Your task to perform on an android device: Turn on the flashlight Image 0: 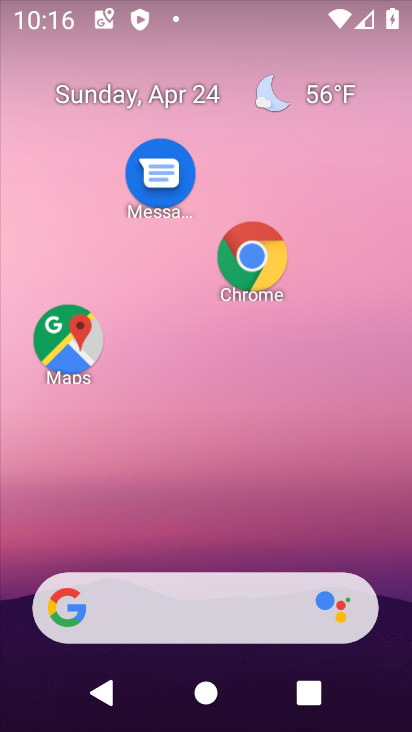
Step 0: drag from (211, 715) to (177, 75)
Your task to perform on an android device: Turn on the flashlight Image 1: 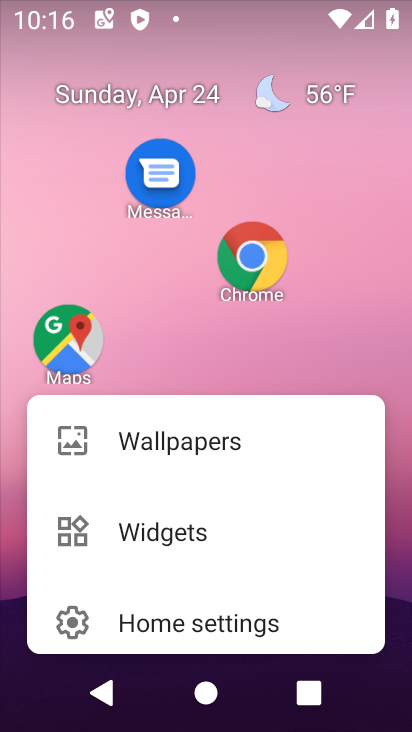
Step 1: click (181, 307)
Your task to perform on an android device: Turn on the flashlight Image 2: 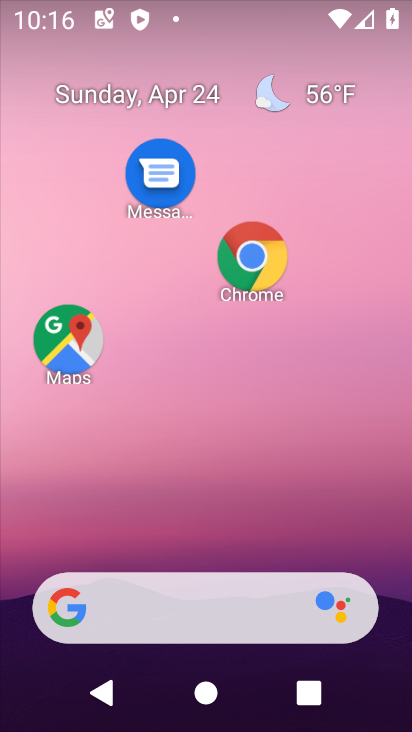
Step 2: drag from (228, 722) to (232, 166)
Your task to perform on an android device: Turn on the flashlight Image 3: 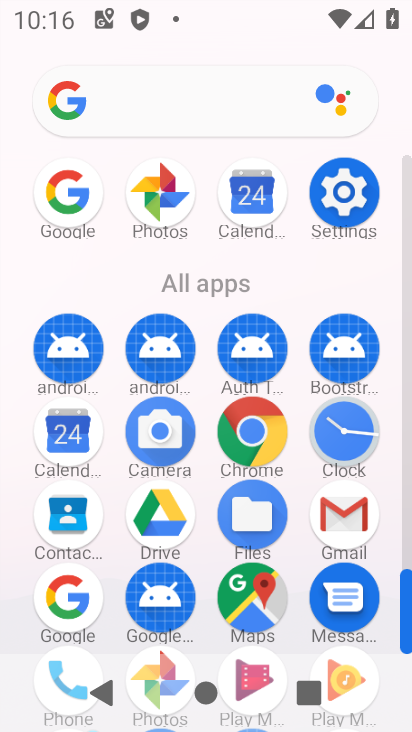
Step 3: click (342, 185)
Your task to perform on an android device: Turn on the flashlight Image 4: 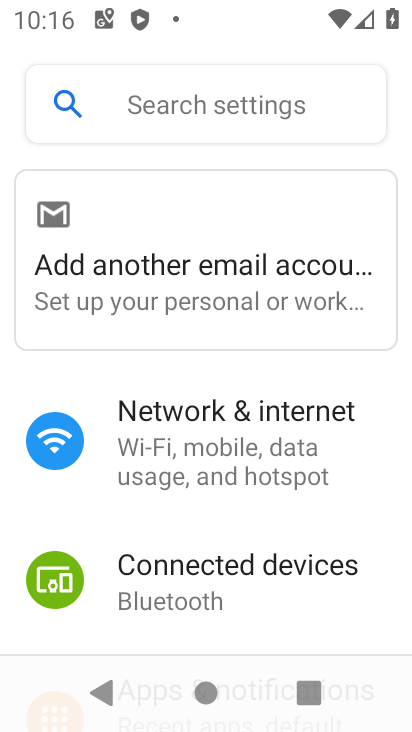
Step 4: task complete